Your task to perform on an android device: open app "Duolingo: language lessons" Image 0: 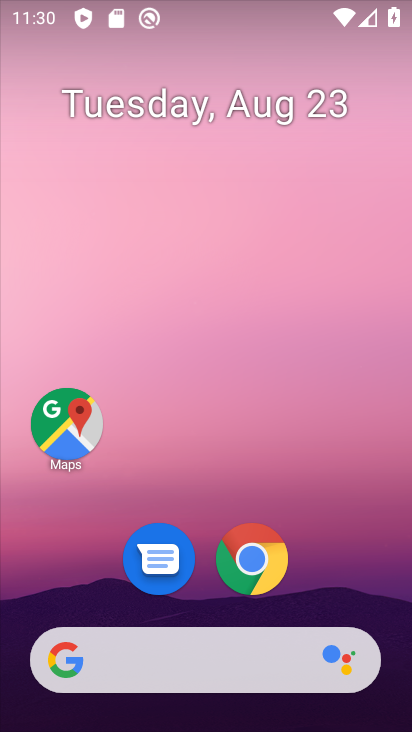
Step 0: drag from (200, 513) to (324, 1)
Your task to perform on an android device: open app "Duolingo: language lessons" Image 1: 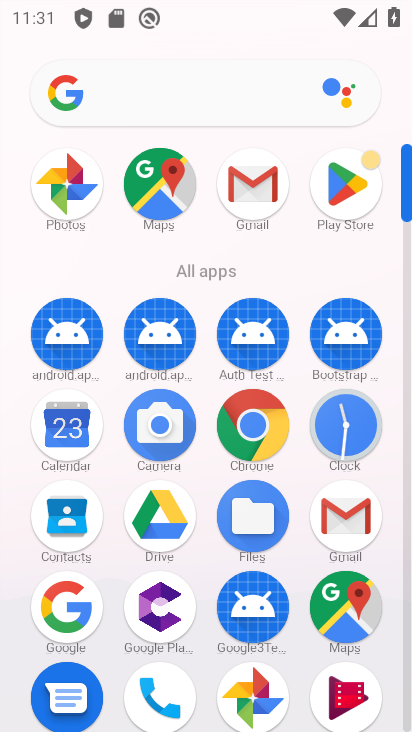
Step 1: click (349, 201)
Your task to perform on an android device: open app "Duolingo: language lessons" Image 2: 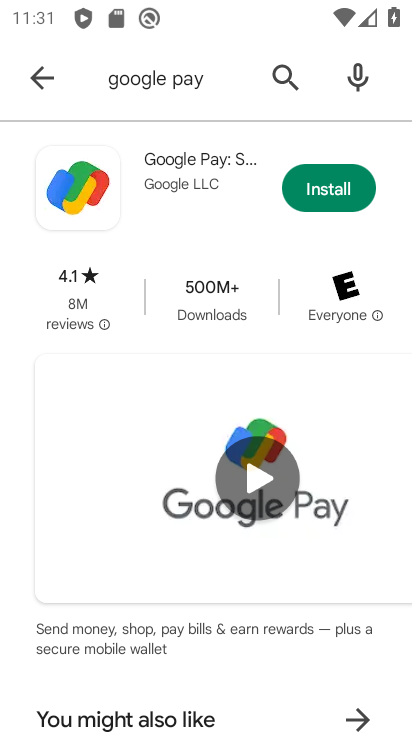
Step 2: click (176, 79)
Your task to perform on an android device: open app "Duolingo: language lessons" Image 3: 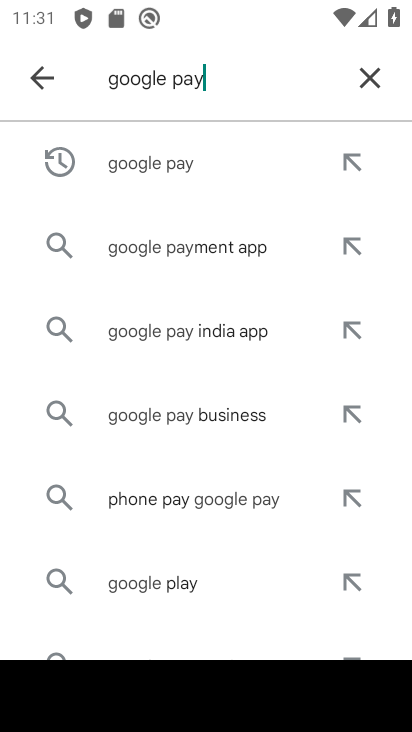
Step 3: click (364, 81)
Your task to perform on an android device: open app "Duolingo: language lessons" Image 4: 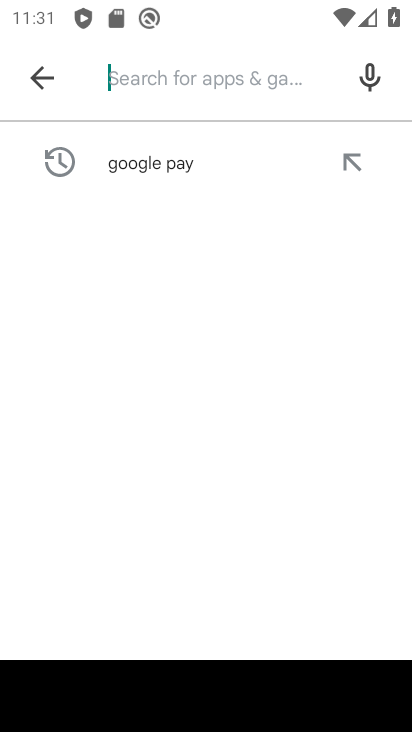
Step 4: type "duolingo"
Your task to perform on an android device: open app "Duolingo: language lessons" Image 5: 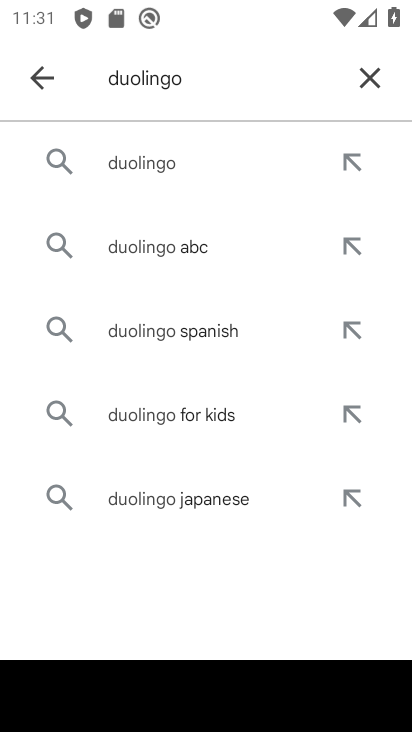
Step 5: click (149, 183)
Your task to perform on an android device: open app "Duolingo: language lessons" Image 6: 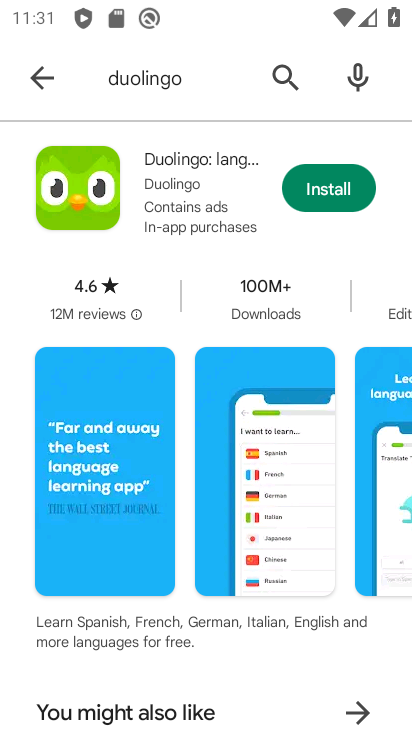
Step 6: task complete